Your task to perform on an android device: empty trash in the gmail app Image 0: 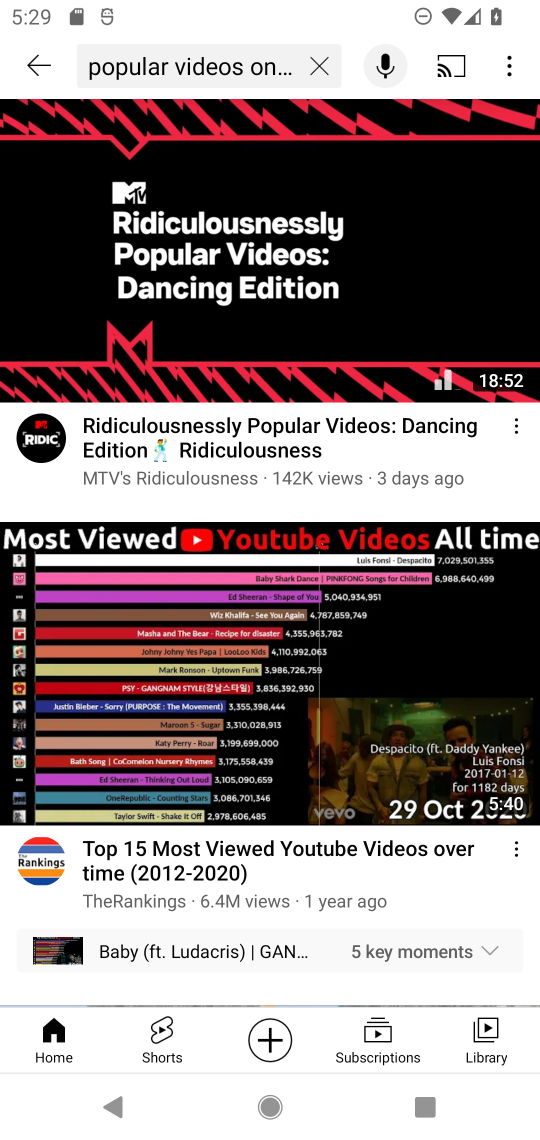
Step 0: press home button
Your task to perform on an android device: empty trash in the gmail app Image 1: 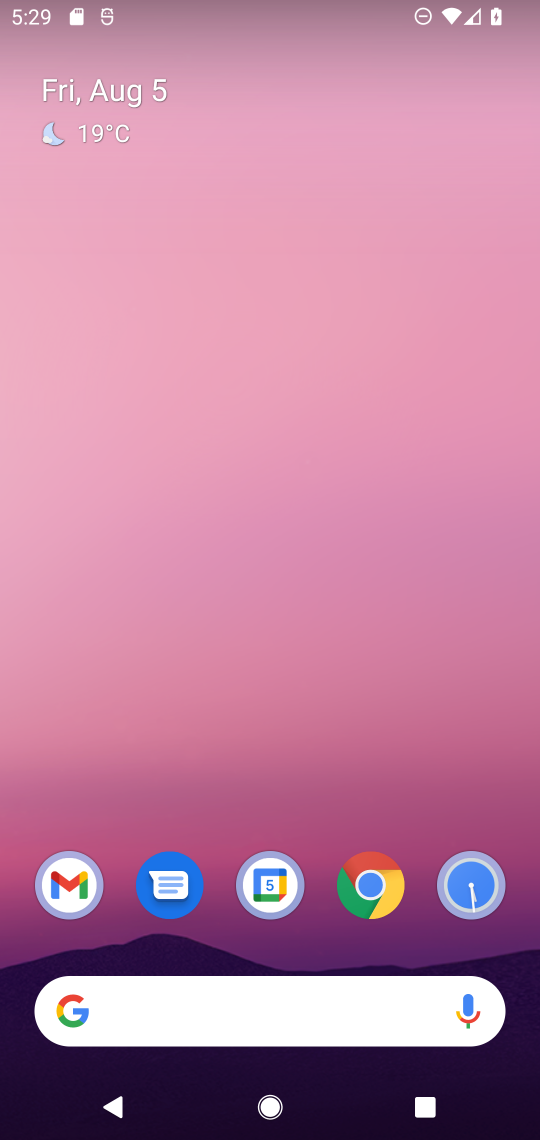
Step 1: drag from (325, 948) to (318, 202)
Your task to perform on an android device: empty trash in the gmail app Image 2: 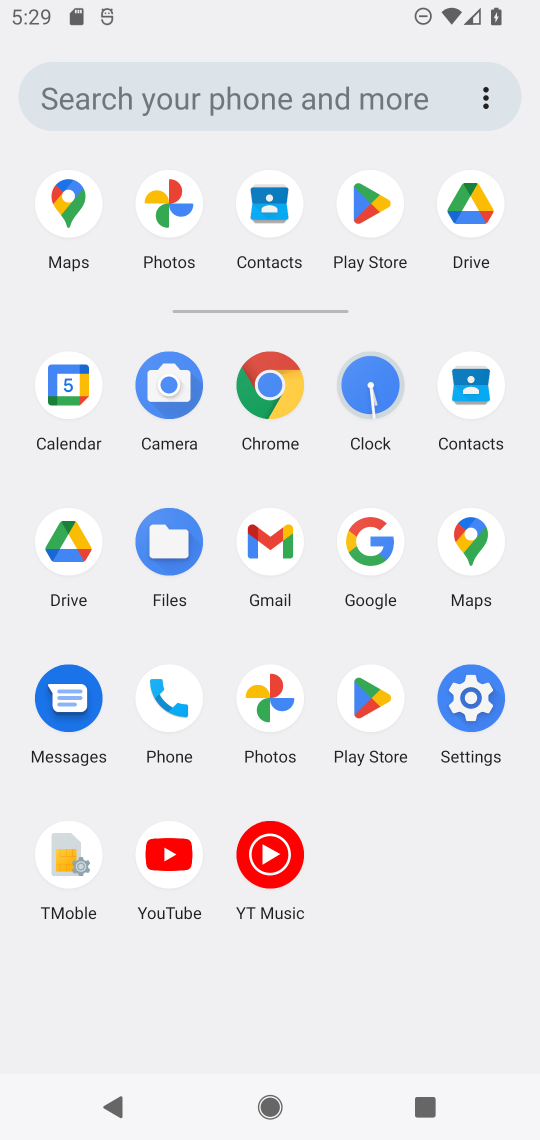
Step 2: click (252, 544)
Your task to perform on an android device: empty trash in the gmail app Image 3: 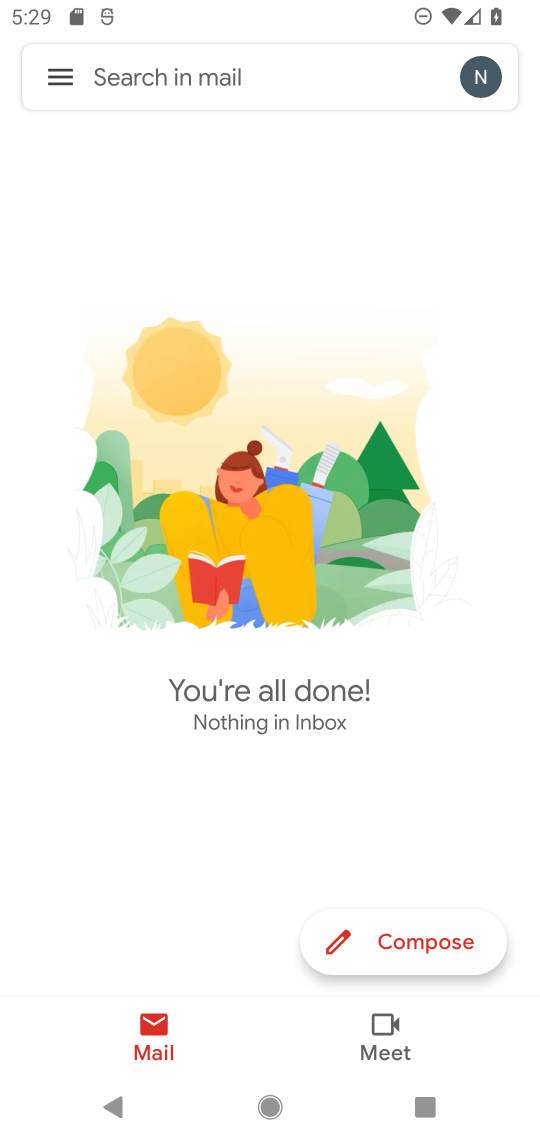
Step 3: click (52, 69)
Your task to perform on an android device: empty trash in the gmail app Image 4: 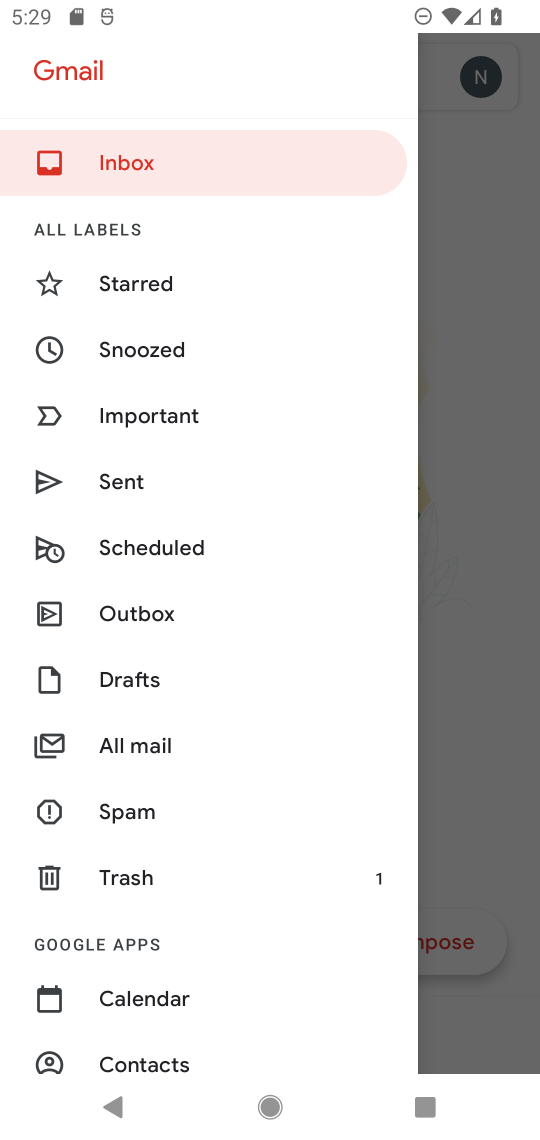
Step 4: click (130, 874)
Your task to perform on an android device: empty trash in the gmail app Image 5: 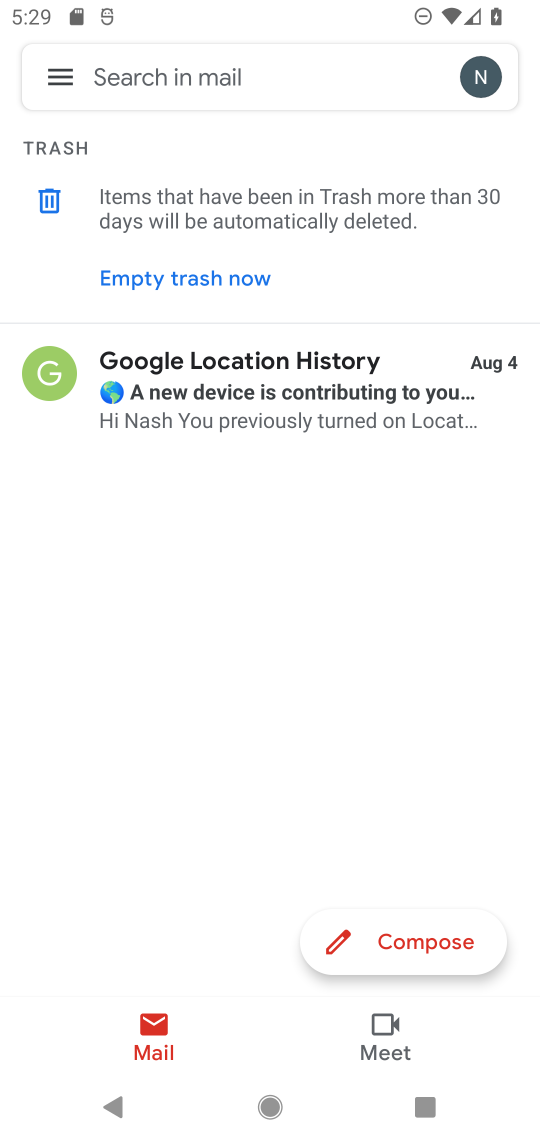
Step 5: click (169, 264)
Your task to perform on an android device: empty trash in the gmail app Image 6: 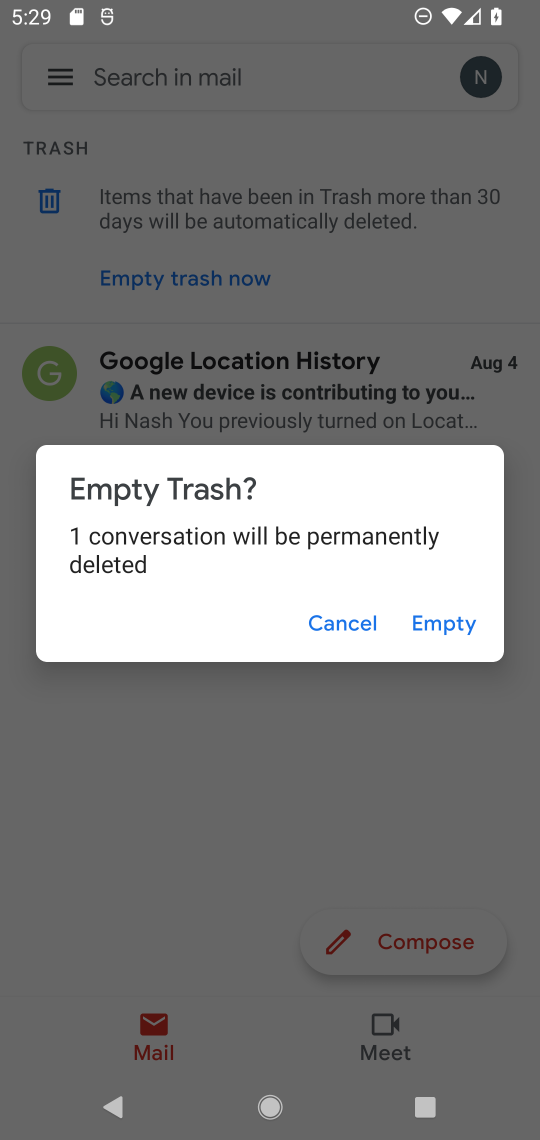
Step 6: click (436, 623)
Your task to perform on an android device: empty trash in the gmail app Image 7: 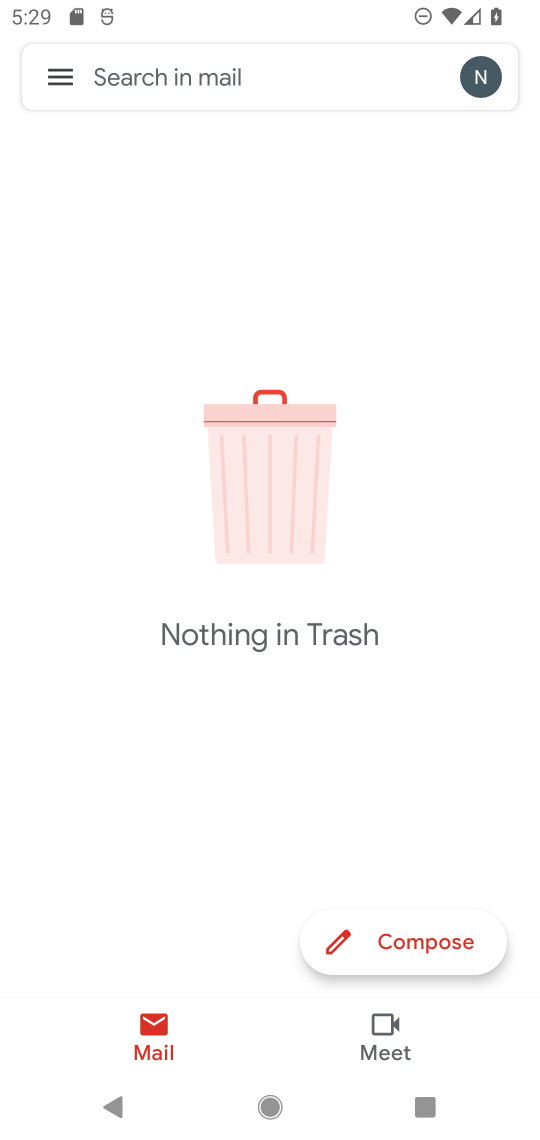
Step 7: task complete